Your task to perform on an android device: What is the recent news? Image 0: 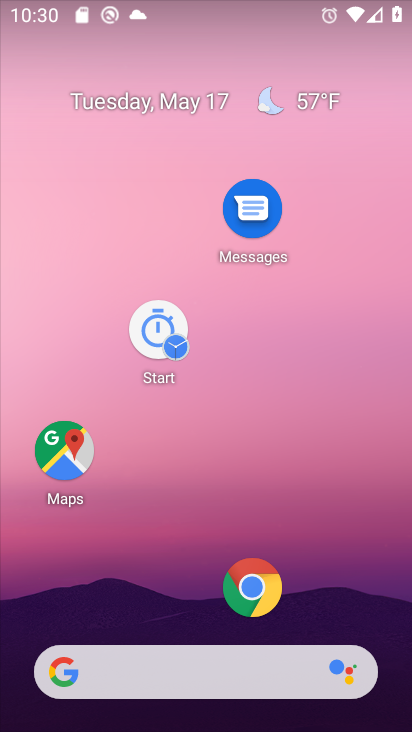
Step 0: drag from (15, 285) to (398, 522)
Your task to perform on an android device: What is the recent news? Image 1: 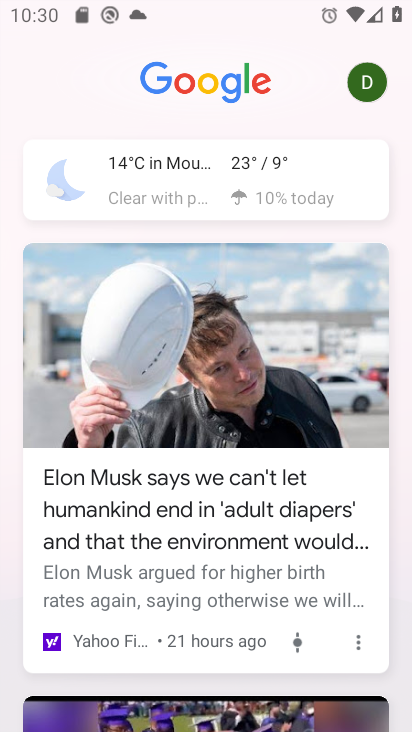
Step 1: task complete